Your task to perform on an android device: turn on javascript in the chrome app Image 0: 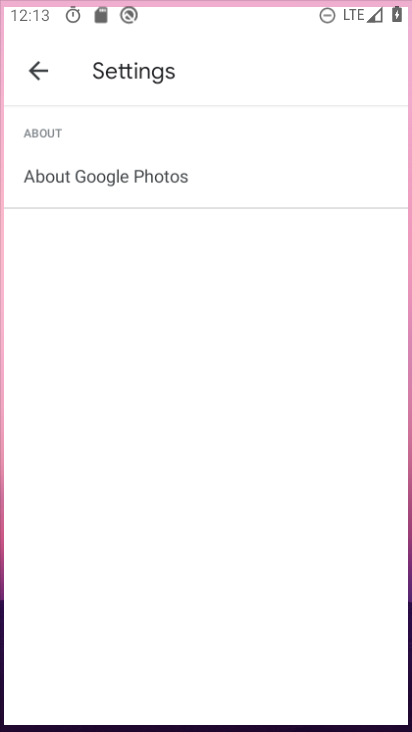
Step 0: drag from (209, 629) to (243, 245)
Your task to perform on an android device: turn on javascript in the chrome app Image 1: 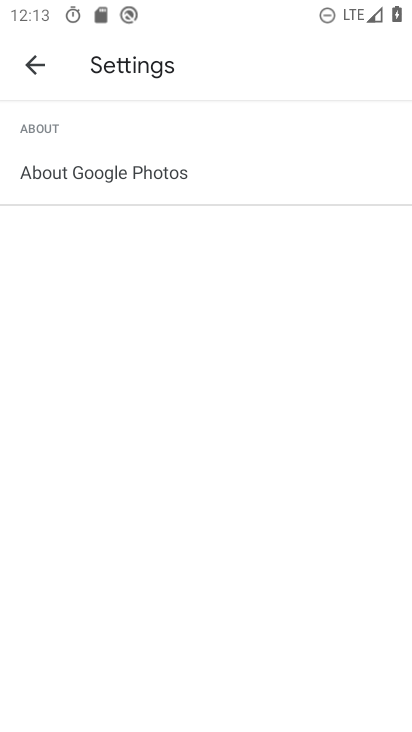
Step 1: click (233, 499)
Your task to perform on an android device: turn on javascript in the chrome app Image 2: 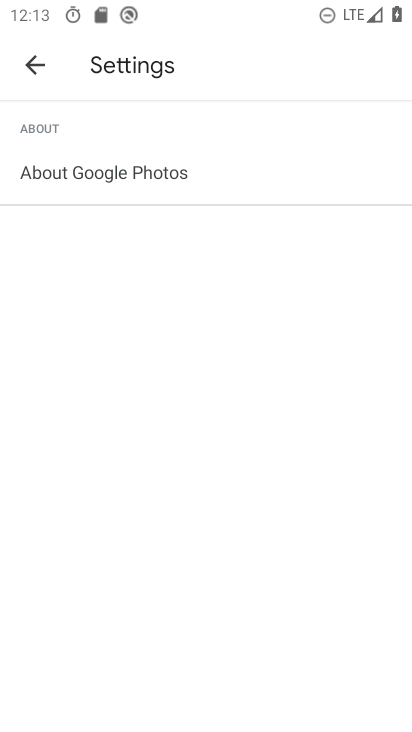
Step 2: press home button
Your task to perform on an android device: turn on javascript in the chrome app Image 3: 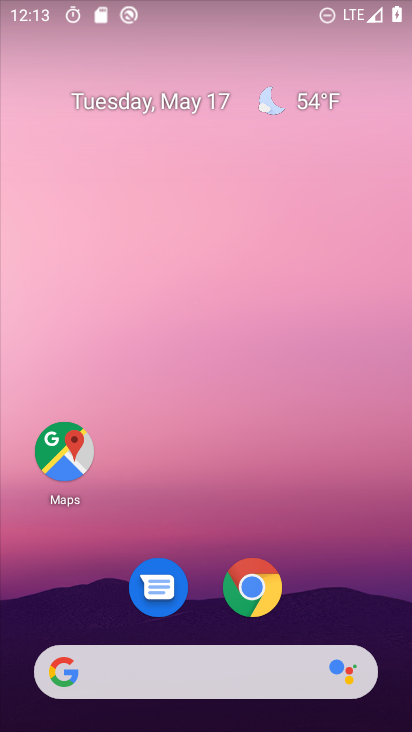
Step 3: drag from (216, 622) to (251, 225)
Your task to perform on an android device: turn on javascript in the chrome app Image 4: 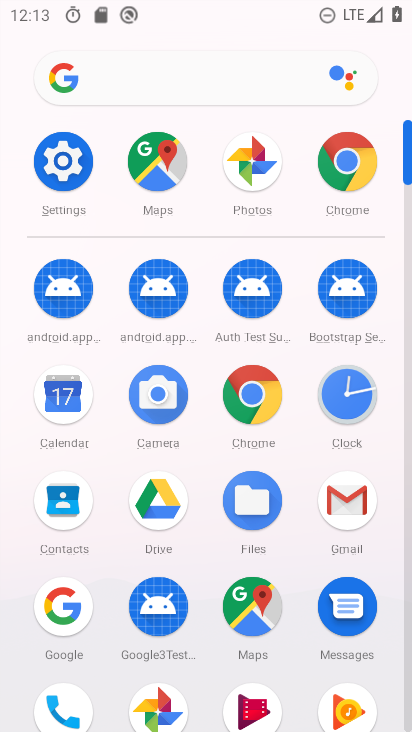
Step 4: click (66, 172)
Your task to perform on an android device: turn on javascript in the chrome app Image 5: 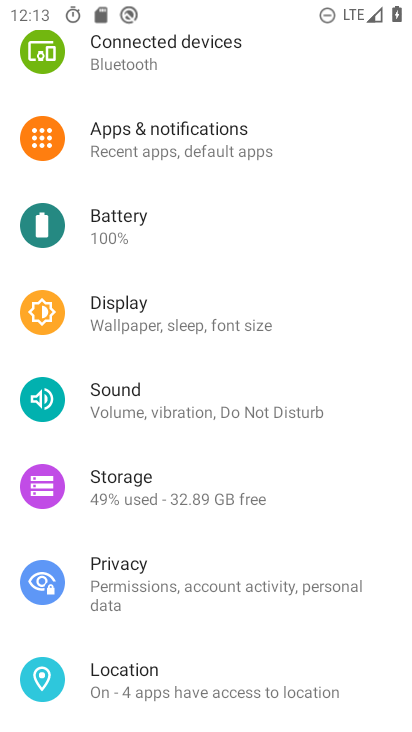
Step 5: drag from (215, 190) to (378, 726)
Your task to perform on an android device: turn on javascript in the chrome app Image 6: 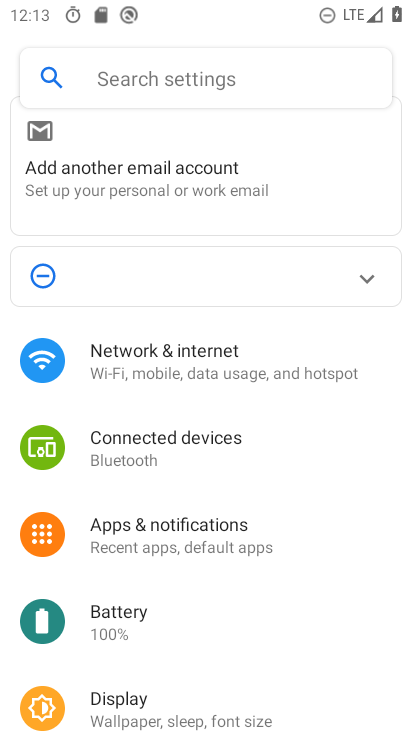
Step 6: drag from (240, 590) to (254, 189)
Your task to perform on an android device: turn on javascript in the chrome app Image 7: 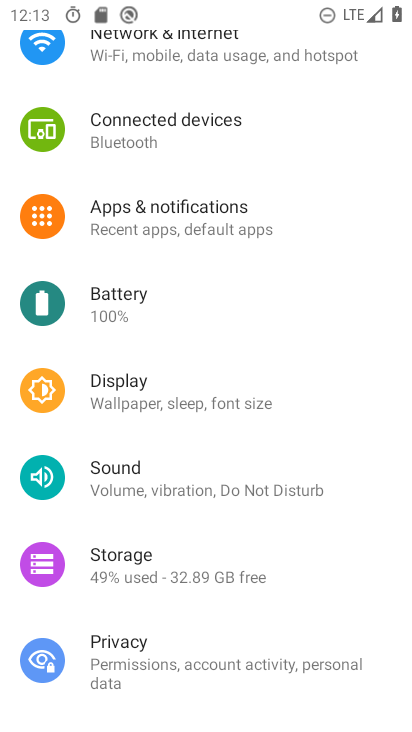
Step 7: press home button
Your task to perform on an android device: turn on javascript in the chrome app Image 8: 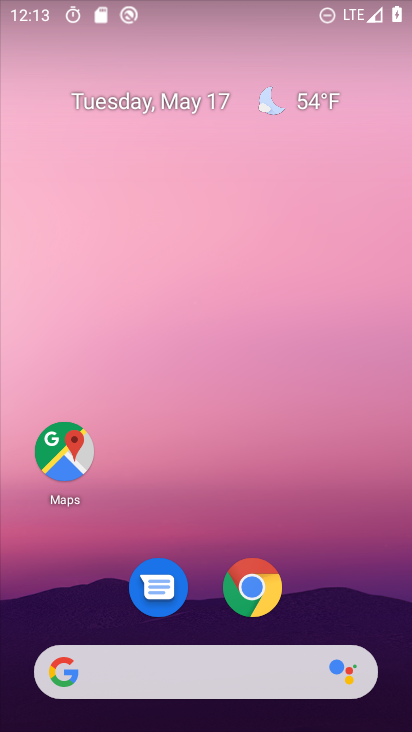
Step 8: click (252, 598)
Your task to perform on an android device: turn on javascript in the chrome app Image 9: 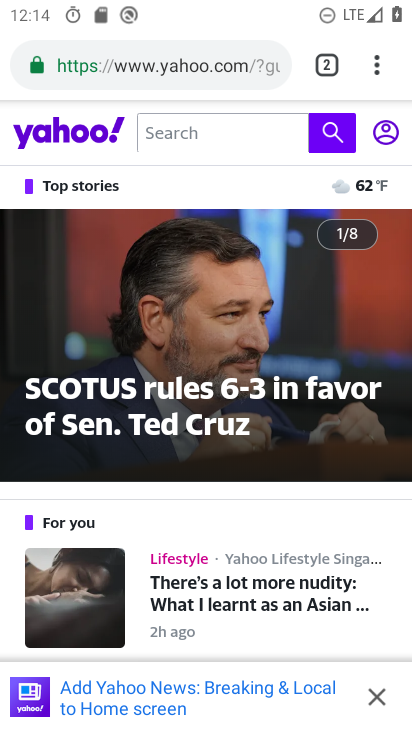
Step 9: click (383, 60)
Your task to perform on an android device: turn on javascript in the chrome app Image 10: 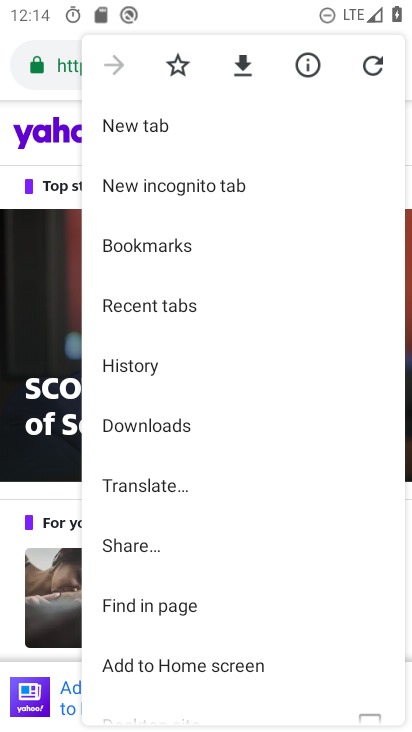
Step 10: drag from (201, 589) to (254, 147)
Your task to perform on an android device: turn on javascript in the chrome app Image 11: 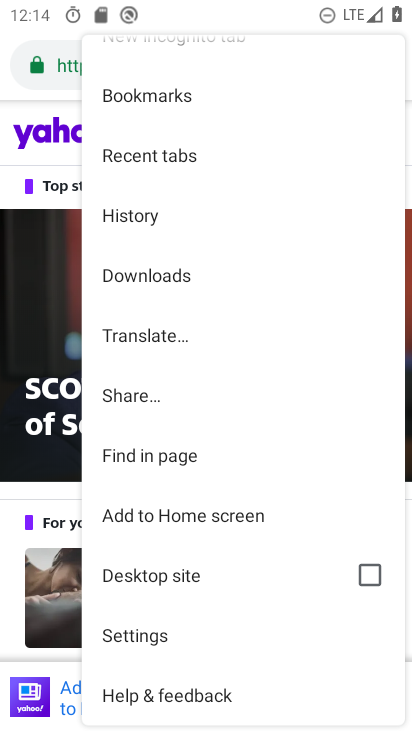
Step 11: click (191, 631)
Your task to perform on an android device: turn on javascript in the chrome app Image 12: 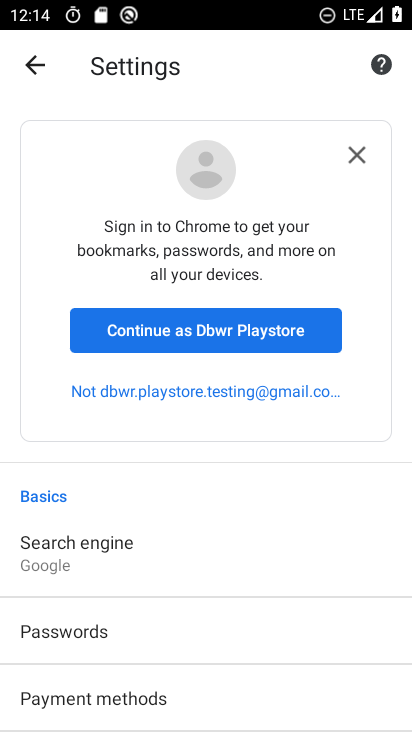
Step 12: drag from (221, 664) to (247, 269)
Your task to perform on an android device: turn on javascript in the chrome app Image 13: 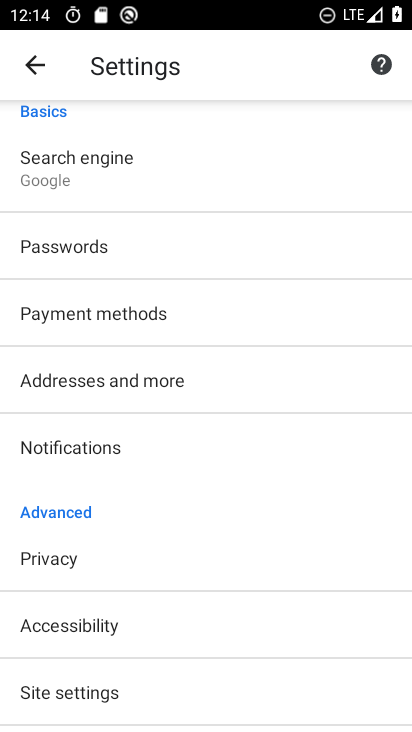
Step 13: drag from (242, 607) to (314, 185)
Your task to perform on an android device: turn on javascript in the chrome app Image 14: 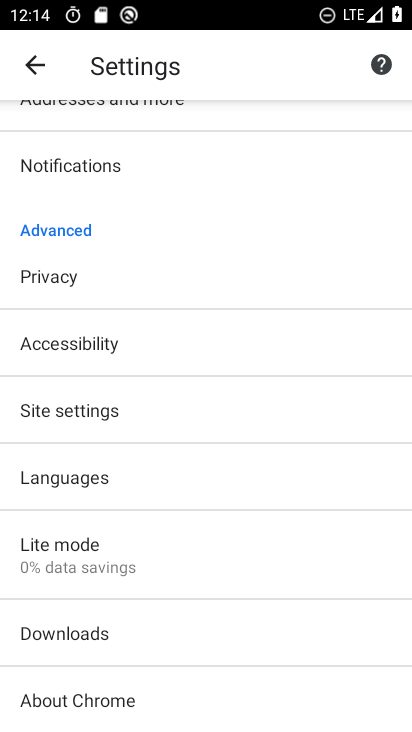
Step 14: click (155, 409)
Your task to perform on an android device: turn on javascript in the chrome app Image 15: 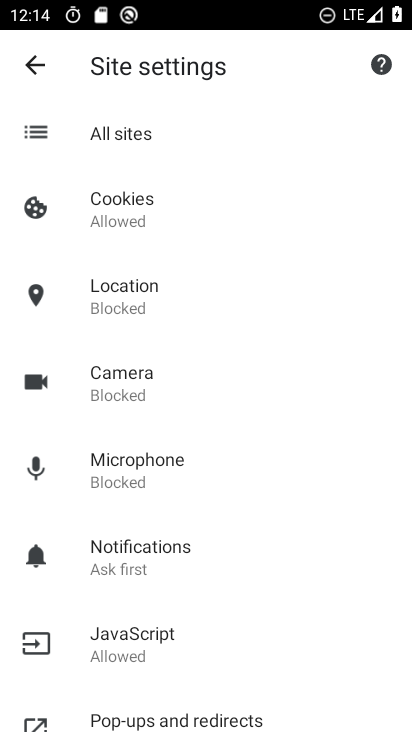
Step 15: click (146, 648)
Your task to perform on an android device: turn on javascript in the chrome app Image 16: 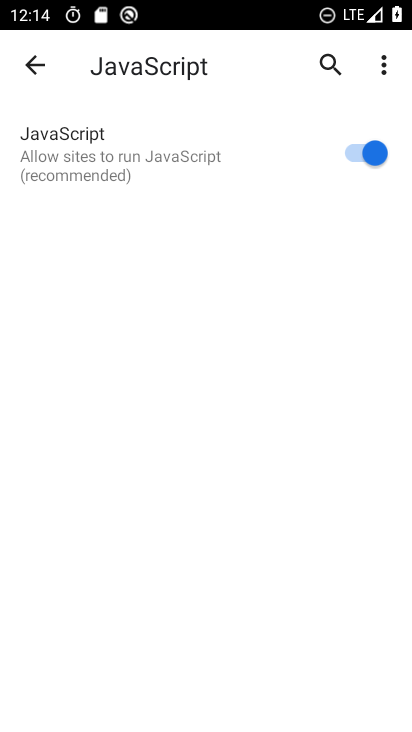
Step 16: task complete